Your task to perform on an android device: Search for the new ikea dresser Image 0: 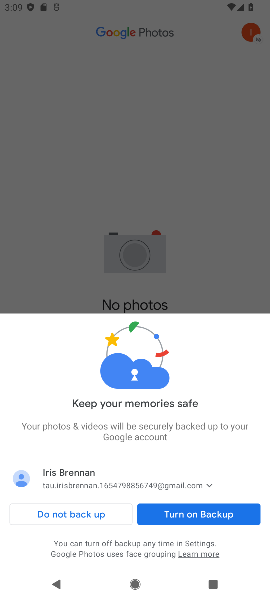
Step 0: press home button
Your task to perform on an android device: Search for the new ikea dresser Image 1: 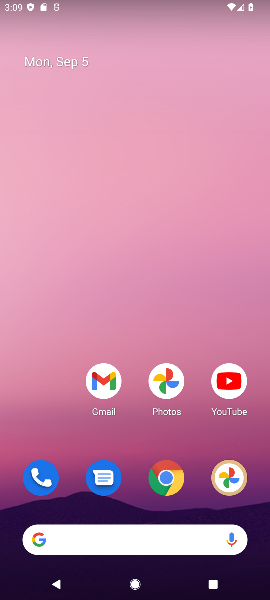
Step 1: drag from (150, 512) to (160, 181)
Your task to perform on an android device: Search for the new ikea dresser Image 2: 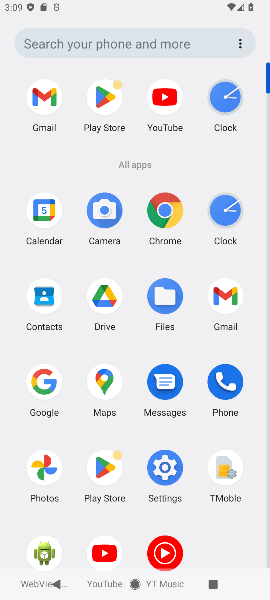
Step 2: click (175, 208)
Your task to perform on an android device: Search for the new ikea dresser Image 3: 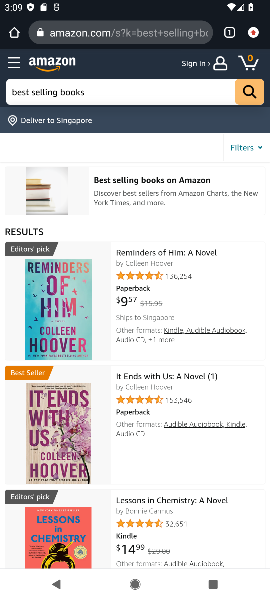
Step 3: click (176, 36)
Your task to perform on an android device: Search for the new ikea dresser Image 4: 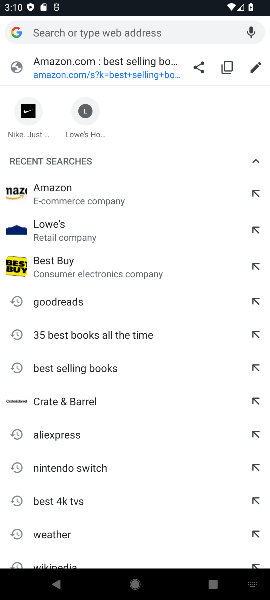
Step 4: type "new ikea dresser"
Your task to perform on an android device: Search for the new ikea dresser Image 5: 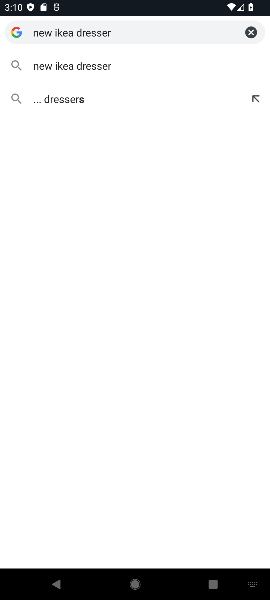
Step 5: click (90, 65)
Your task to perform on an android device: Search for the new ikea dresser Image 6: 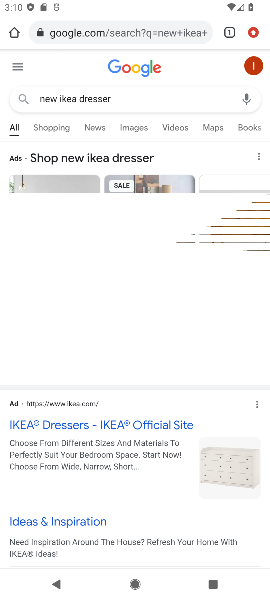
Step 6: task complete